Your task to perform on an android device: check battery use Image 0: 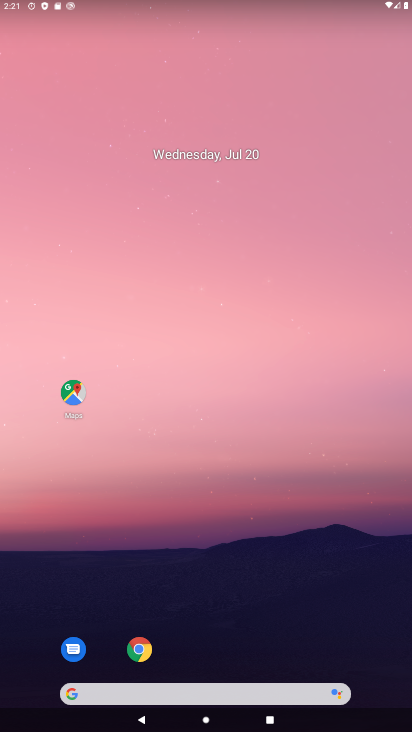
Step 0: drag from (248, 536) to (291, 6)
Your task to perform on an android device: check battery use Image 1: 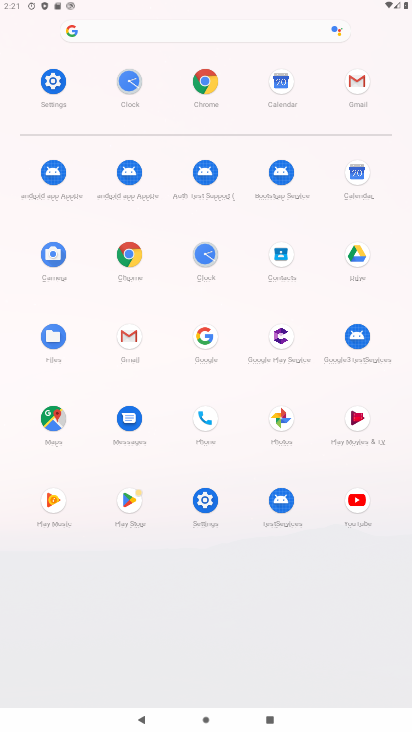
Step 1: click (204, 505)
Your task to perform on an android device: check battery use Image 2: 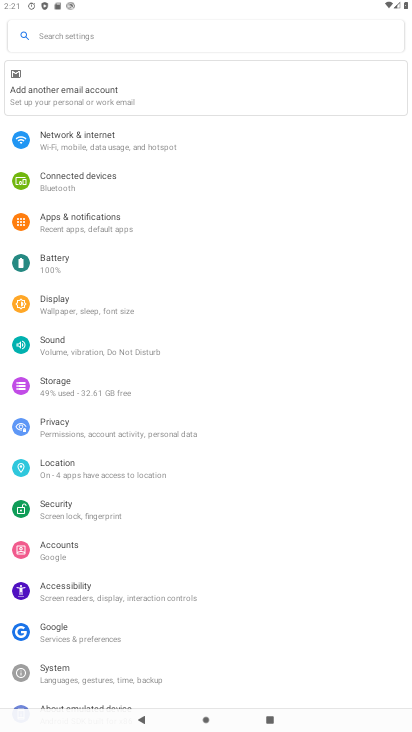
Step 2: click (82, 265)
Your task to perform on an android device: check battery use Image 3: 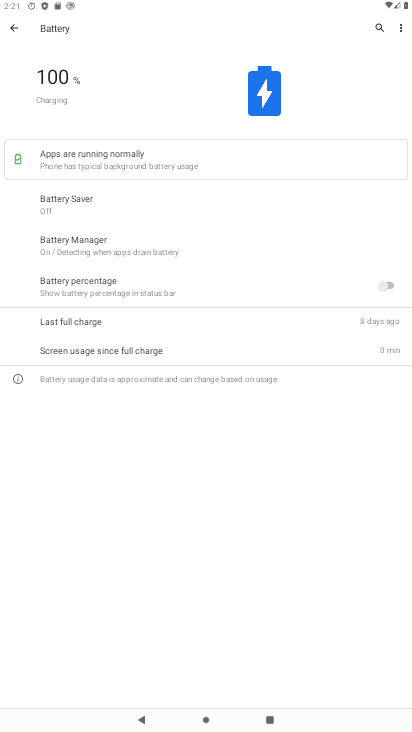
Step 3: task complete